Your task to perform on an android device: Go to CNN.com Image 0: 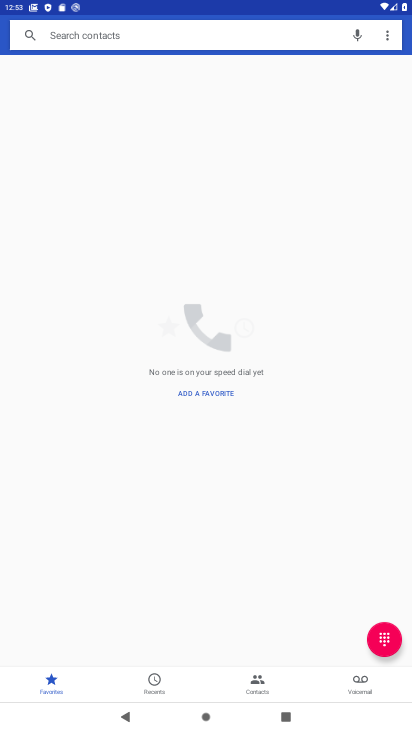
Step 0: press home button
Your task to perform on an android device: Go to CNN.com Image 1: 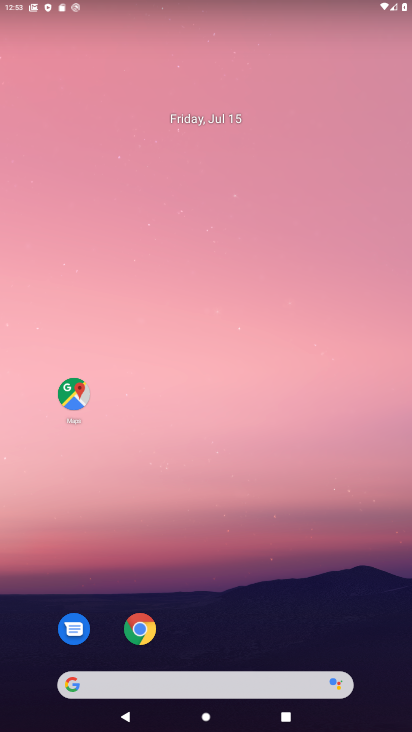
Step 1: click (275, 691)
Your task to perform on an android device: Go to CNN.com Image 2: 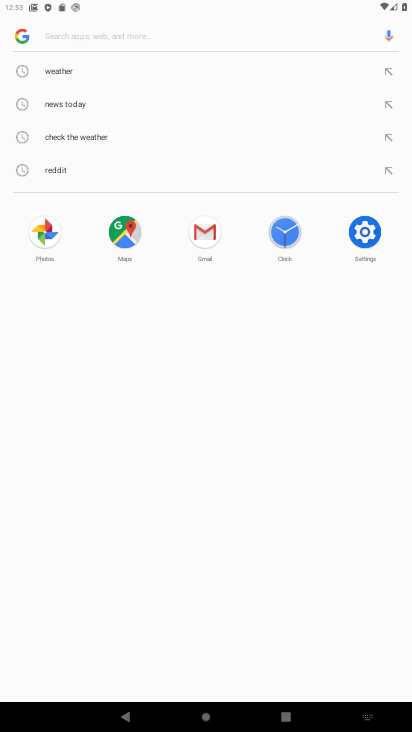
Step 2: type "cnn.com"
Your task to perform on an android device: Go to CNN.com Image 3: 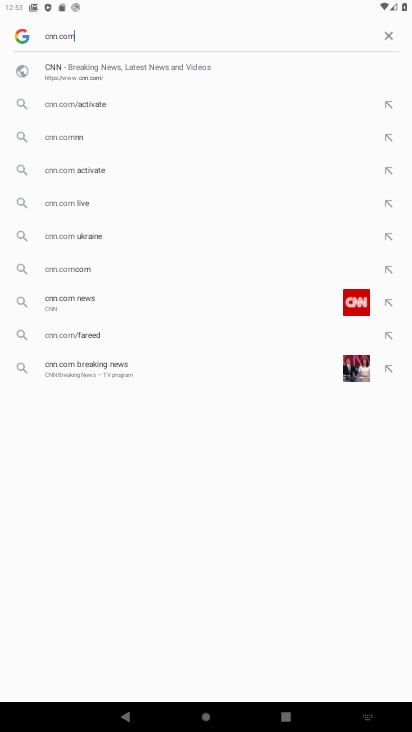
Step 3: click (181, 73)
Your task to perform on an android device: Go to CNN.com Image 4: 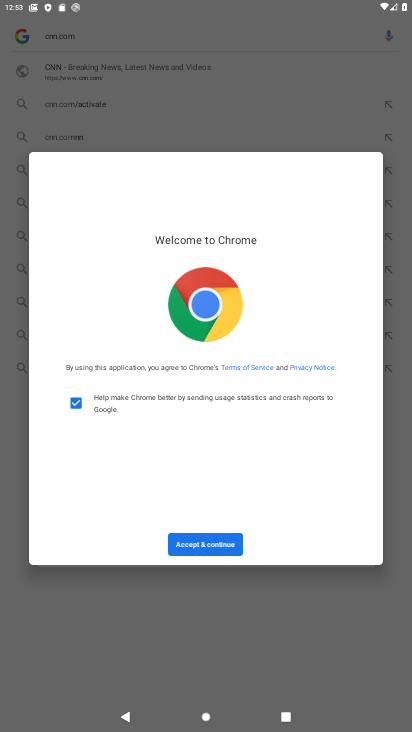
Step 4: click (209, 547)
Your task to perform on an android device: Go to CNN.com Image 5: 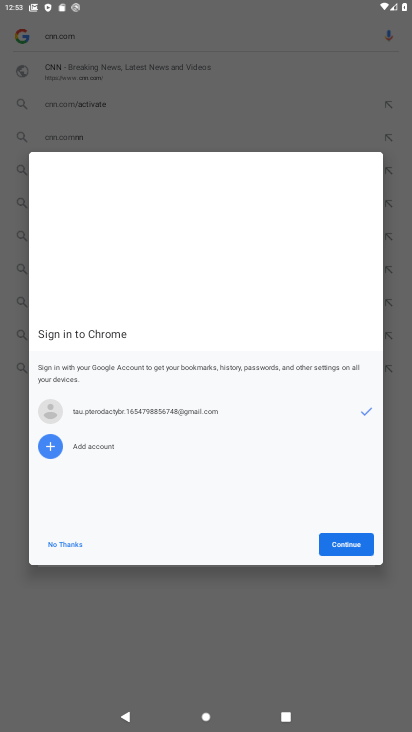
Step 5: click (356, 546)
Your task to perform on an android device: Go to CNN.com Image 6: 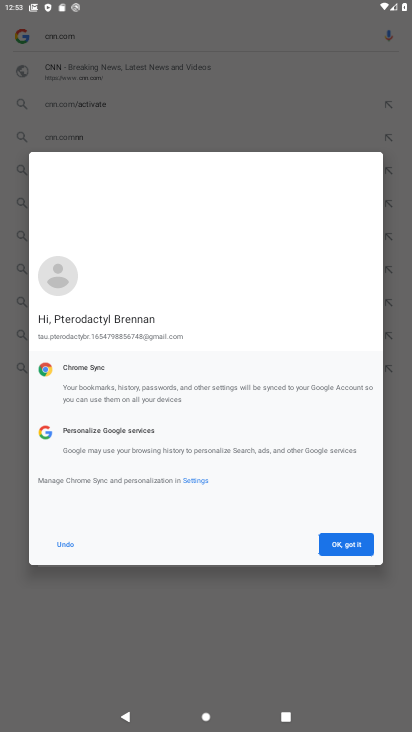
Step 6: click (352, 543)
Your task to perform on an android device: Go to CNN.com Image 7: 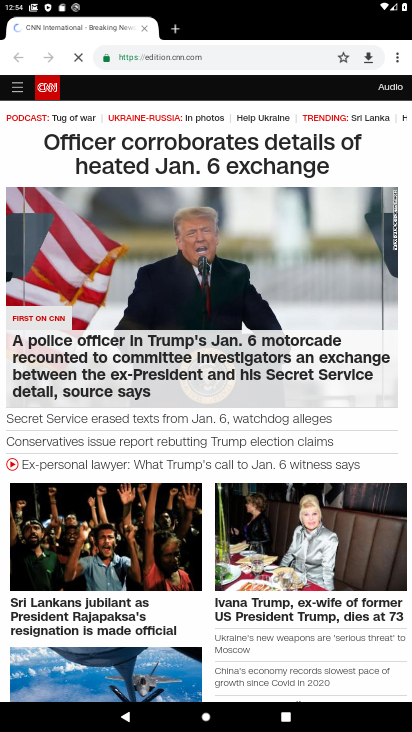
Step 7: task complete